Your task to perform on an android device: toggle notifications settings in the gmail app Image 0: 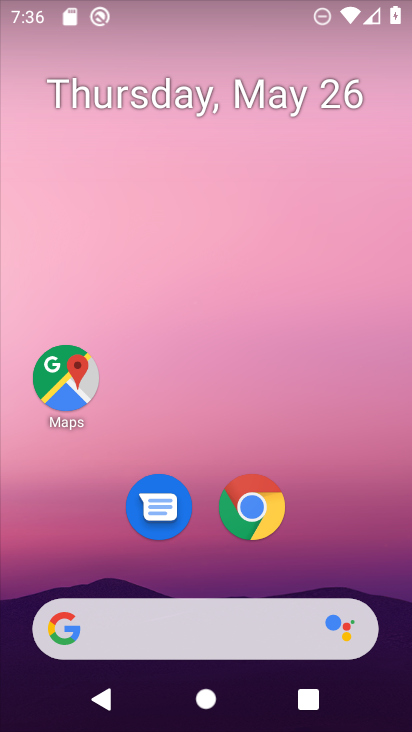
Step 0: drag from (169, 568) to (176, 93)
Your task to perform on an android device: toggle notifications settings in the gmail app Image 1: 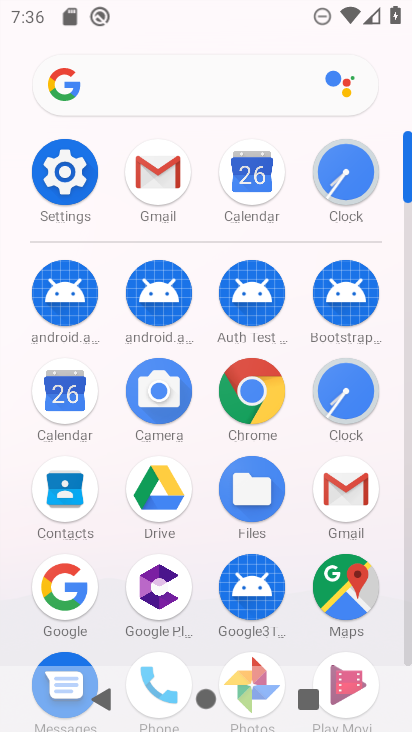
Step 1: click (159, 174)
Your task to perform on an android device: toggle notifications settings in the gmail app Image 2: 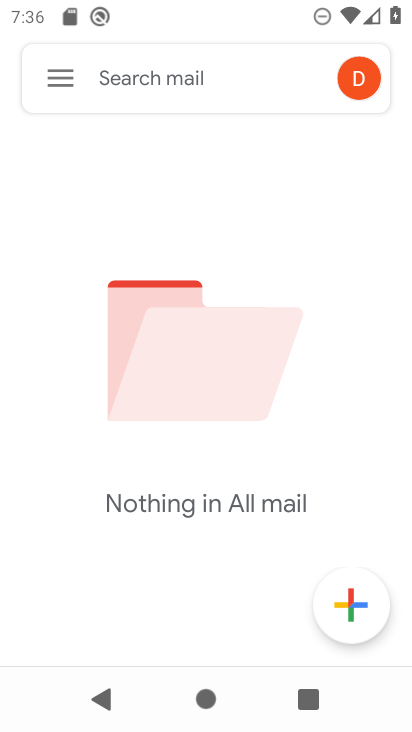
Step 2: click (52, 82)
Your task to perform on an android device: toggle notifications settings in the gmail app Image 3: 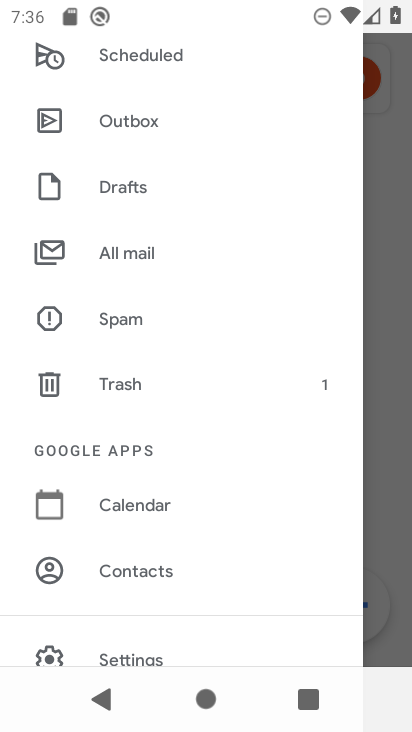
Step 3: drag from (167, 621) to (164, 371)
Your task to perform on an android device: toggle notifications settings in the gmail app Image 4: 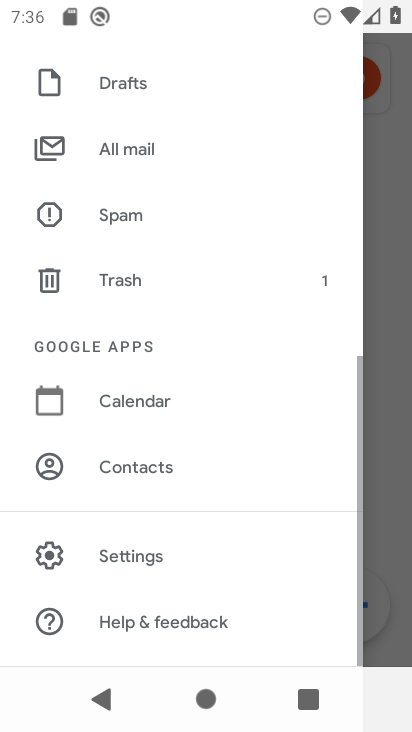
Step 4: click (121, 559)
Your task to perform on an android device: toggle notifications settings in the gmail app Image 5: 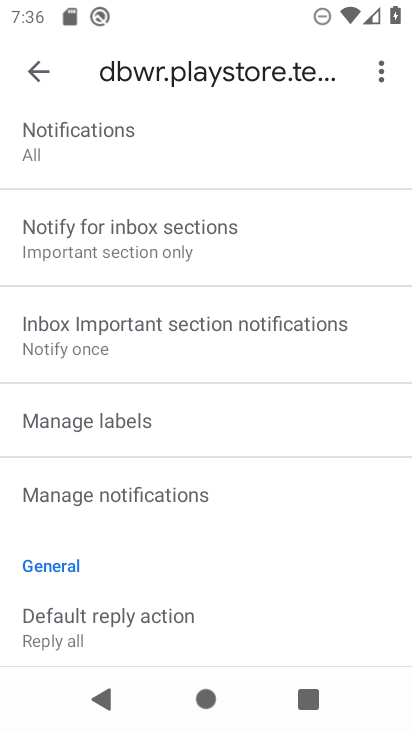
Step 5: click (107, 503)
Your task to perform on an android device: toggle notifications settings in the gmail app Image 6: 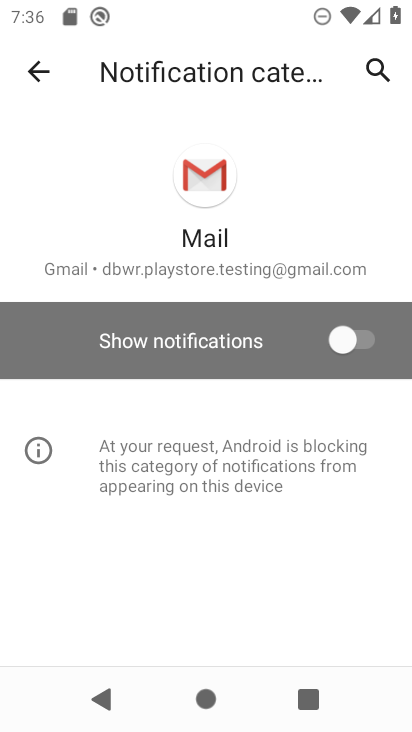
Step 6: click (371, 345)
Your task to perform on an android device: toggle notifications settings in the gmail app Image 7: 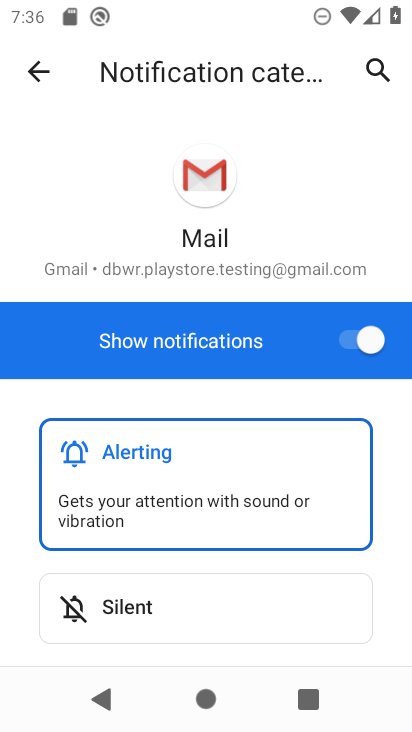
Step 7: task complete